Your task to perform on an android device: Search for a new perfume Image 0: 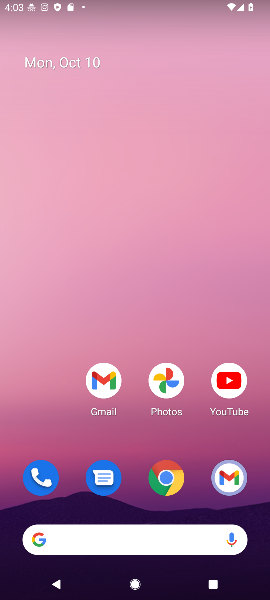
Step 0: click (162, 475)
Your task to perform on an android device: Search for a new perfume Image 1: 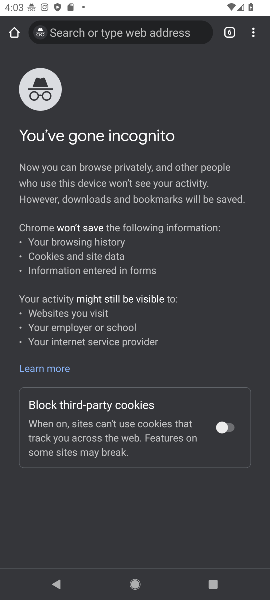
Step 1: click (91, 38)
Your task to perform on an android device: Search for a new perfume Image 2: 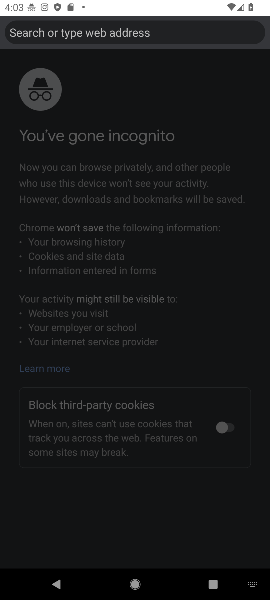
Step 2: type "new perfume"
Your task to perform on an android device: Search for a new perfume Image 3: 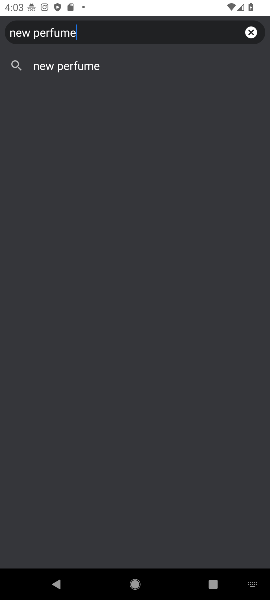
Step 3: click (79, 73)
Your task to perform on an android device: Search for a new perfume Image 4: 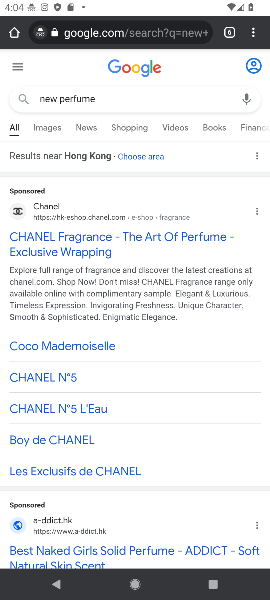
Step 4: drag from (78, 494) to (128, 193)
Your task to perform on an android device: Search for a new perfume Image 5: 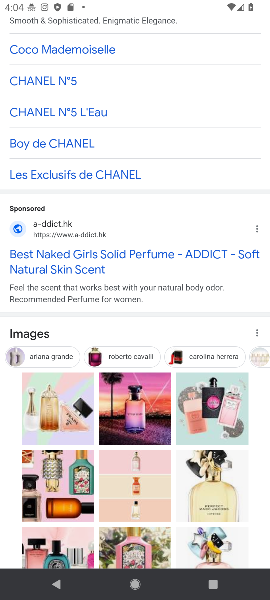
Step 5: drag from (154, 550) to (186, 66)
Your task to perform on an android device: Search for a new perfume Image 6: 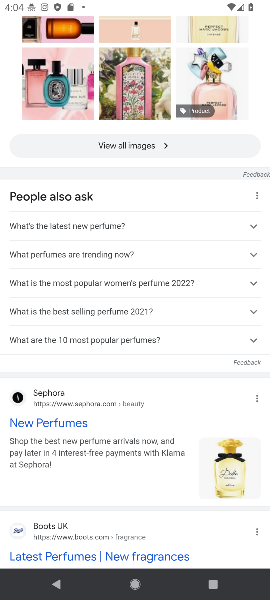
Step 6: click (52, 552)
Your task to perform on an android device: Search for a new perfume Image 7: 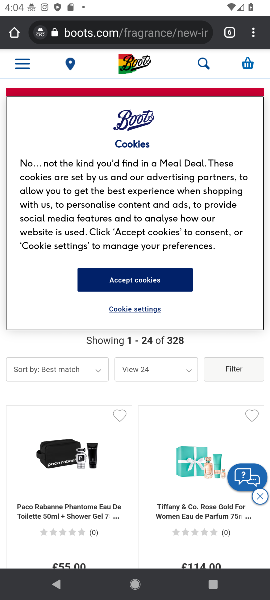
Step 7: task complete